Your task to perform on an android device: Open Google Chrome and click the shortcut for Amazon.com Image 0: 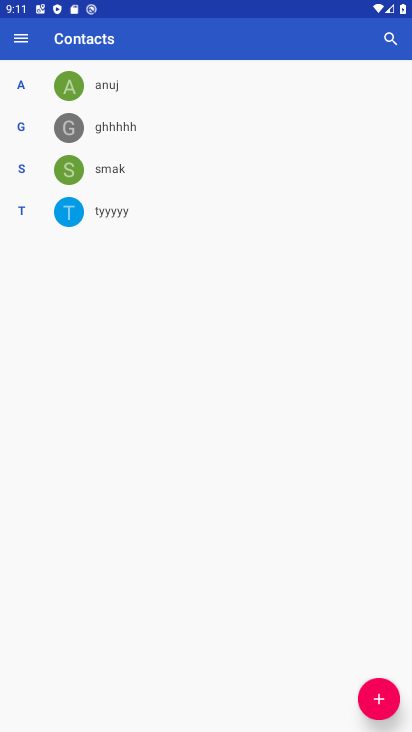
Step 0: press home button
Your task to perform on an android device: Open Google Chrome and click the shortcut for Amazon.com Image 1: 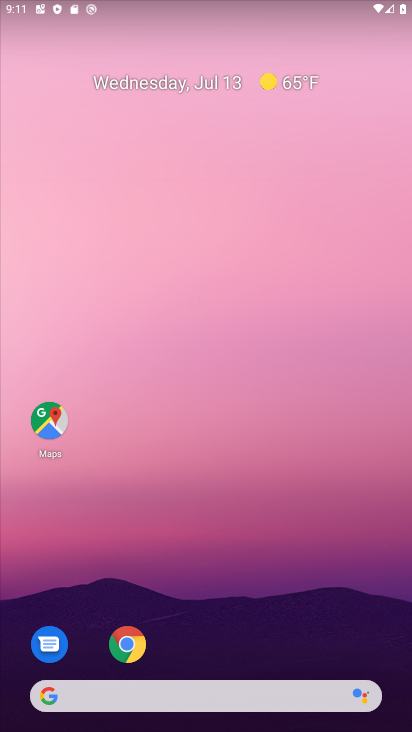
Step 1: drag from (264, 618) to (287, 13)
Your task to perform on an android device: Open Google Chrome and click the shortcut for Amazon.com Image 2: 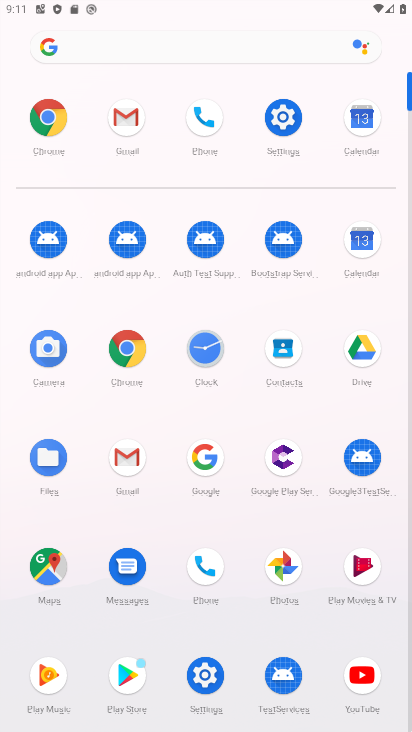
Step 2: click (46, 118)
Your task to perform on an android device: Open Google Chrome and click the shortcut for Amazon.com Image 3: 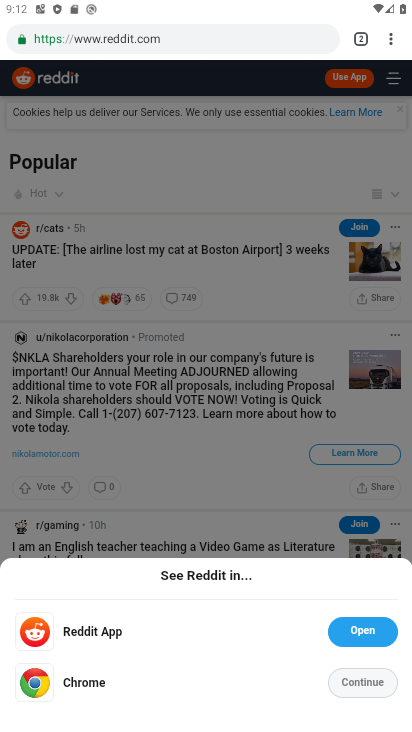
Step 3: click (203, 40)
Your task to perform on an android device: Open Google Chrome and click the shortcut for Amazon.com Image 4: 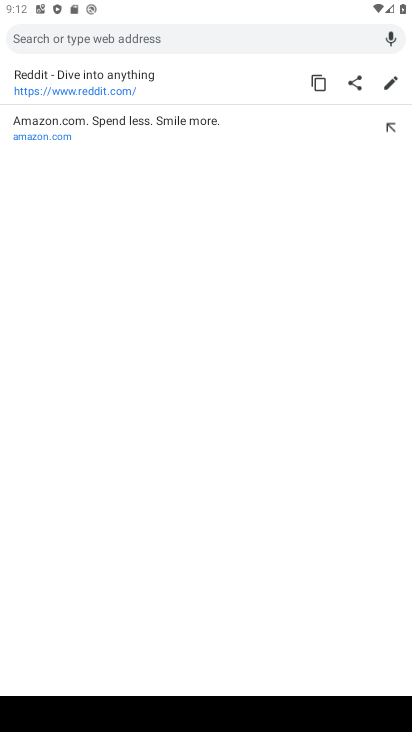
Step 4: type "Amazon.com"
Your task to perform on an android device: Open Google Chrome and click the shortcut for Amazon.com Image 5: 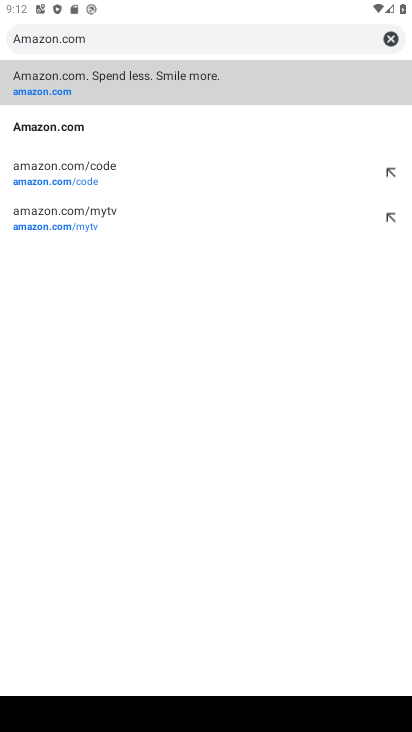
Step 5: click (94, 119)
Your task to perform on an android device: Open Google Chrome and click the shortcut for Amazon.com Image 6: 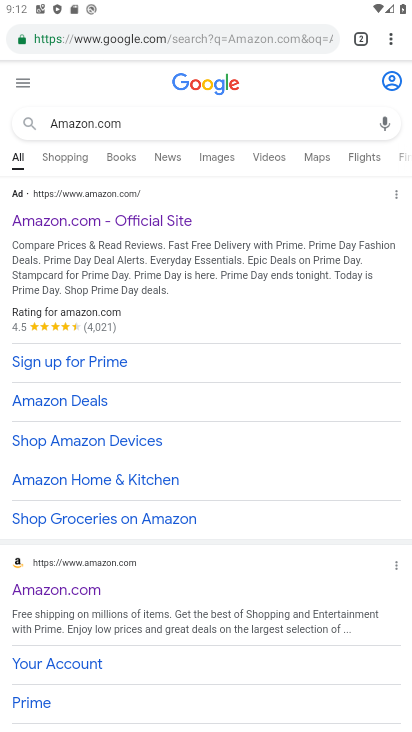
Step 6: click (96, 221)
Your task to perform on an android device: Open Google Chrome and click the shortcut for Amazon.com Image 7: 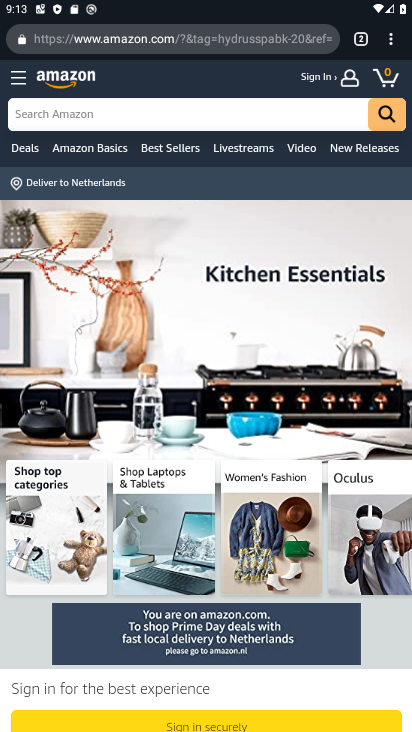
Step 7: task complete